Your task to perform on an android device: change the clock display to analog Image 0: 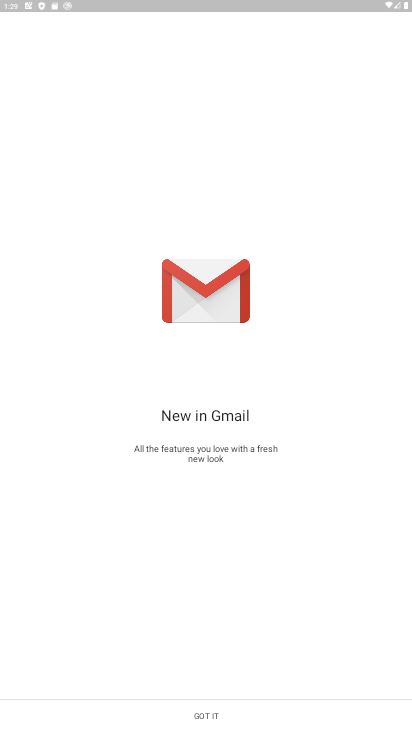
Step 0: press home button
Your task to perform on an android device: change the clock display to analog Image 1: 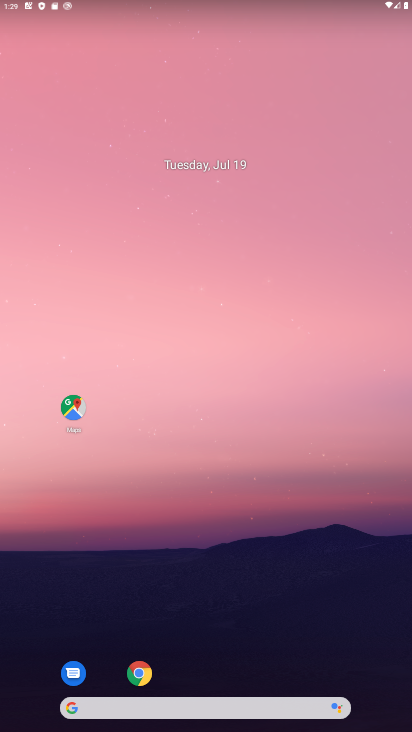
Step 1: drag from (199, 646) to (230, 183)
Your task to perform on an android device: change the clock display to analog Image 2: 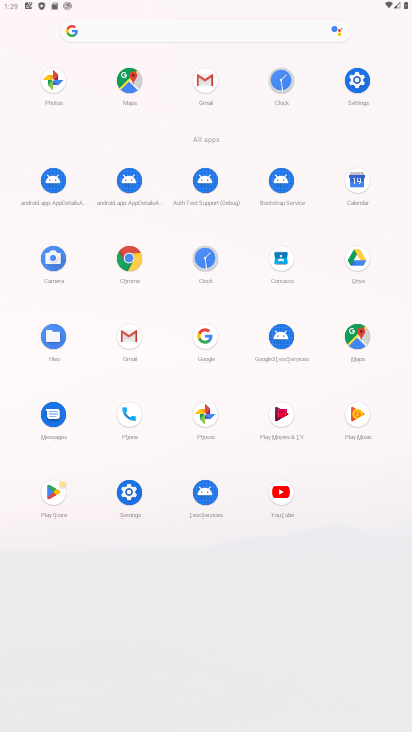
Step 2: click (191, 252)
Your task to perform on an android device: change the clock display to analog Image 3: 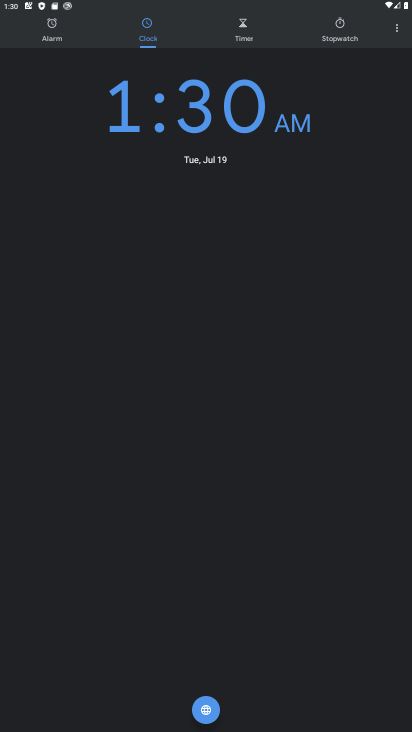
Step 3: click (398, 34)
Your task to perform on an android device: change the clock display to analog Image 4: 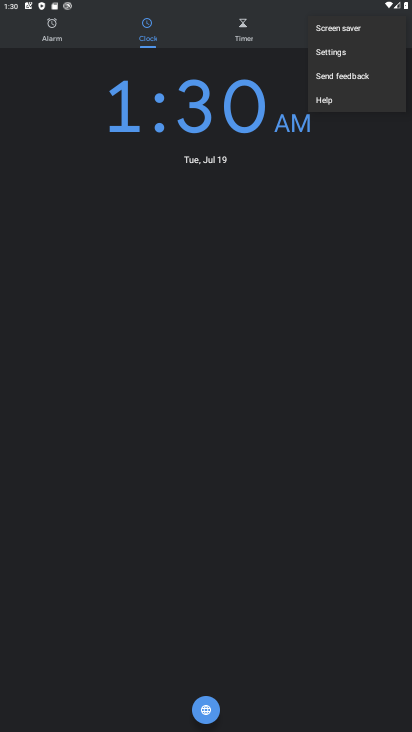
Step 4: click (366, 55)
Your task to perform on an android device: change the clock display to analog Image 5: 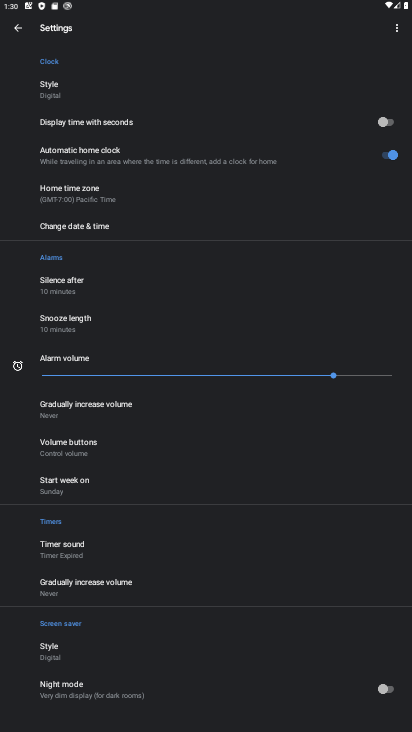
Step 5: click (127, 94)
Your task to perform on an android device: change the clock display to analog Image 6: 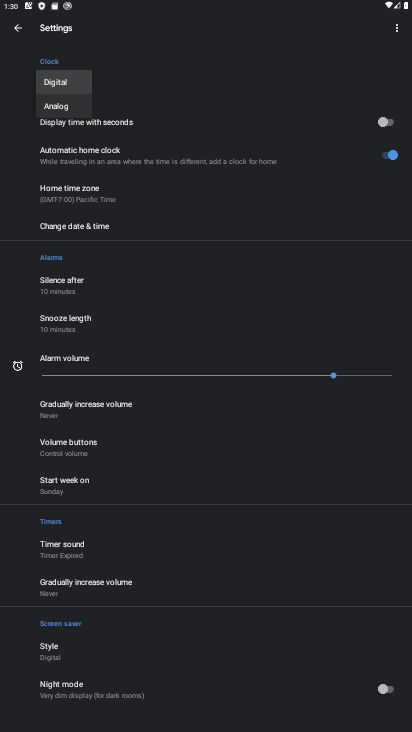
Step 6: click (75, 113)
Your task to perform on an android device: change the clock display to analog Image 7: 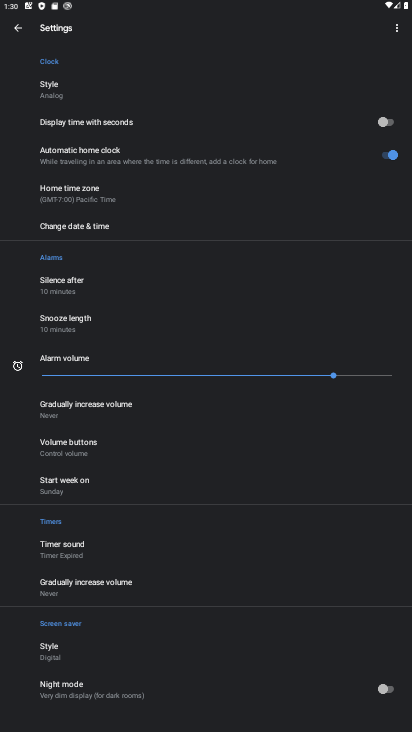
Step 7: task complete